Your task to perform on an android device: Open calendar and show me the third week of next month Image 0: 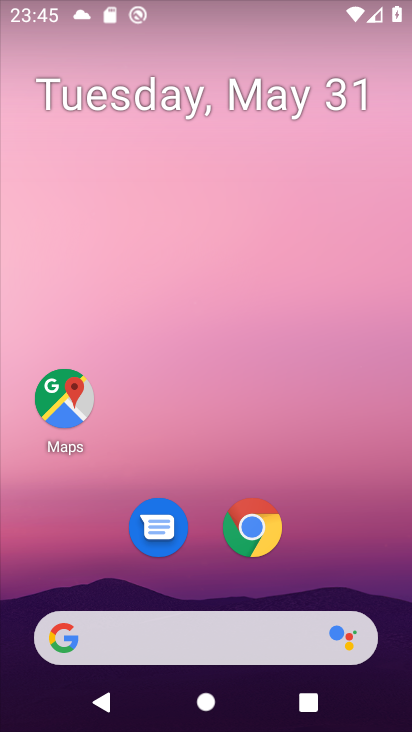
Step 0: click (153, 89)
Your task to perform on an android device: Open calendar and show me the third week of next month Image 1: 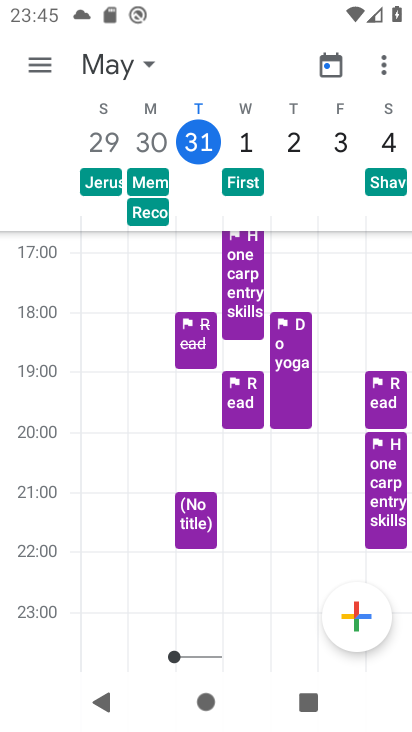
Step 1: click (154, 61)
Your task to perform on an android device: Open calendar and show me the third week of next month Image 2: 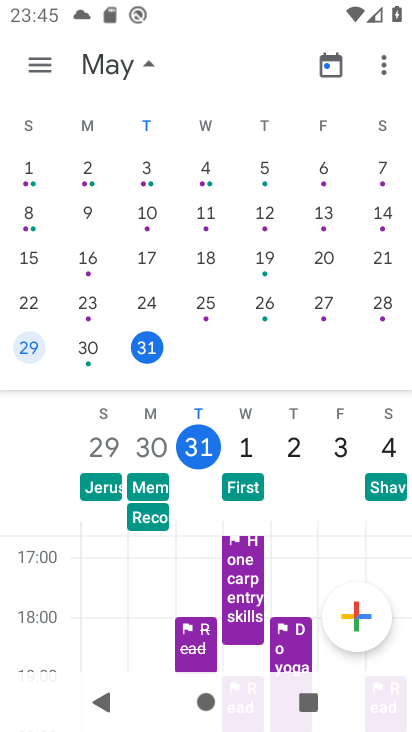
Step 2: drag from (347, 248) to (6, 157)
Your task to perform on an android device: Open calendar and show me the third week of next month Image 3: 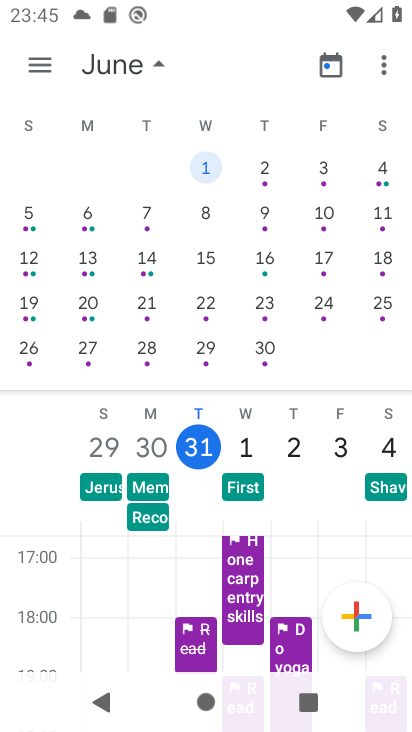
Step 3: click (35, 253)
Your task to perform on an android device: Open calendar and show me the third week of next month Image 4: 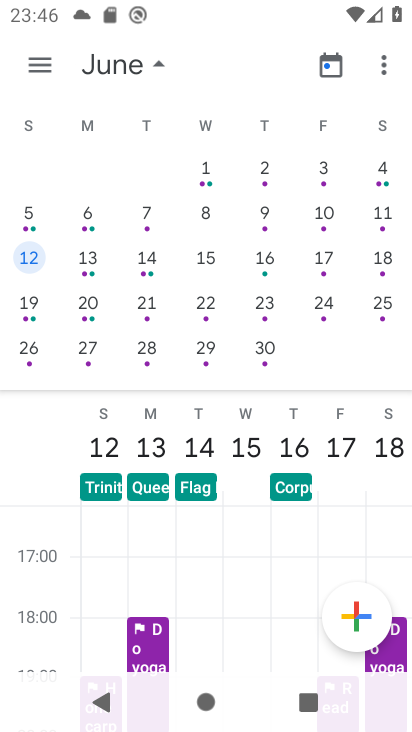
Step 4: task complete